Your task to perform on an android device: Clear the shopping cart on ebay.com. Add "macbook" to the cart on ebay.com, then select checkout. Image 0: 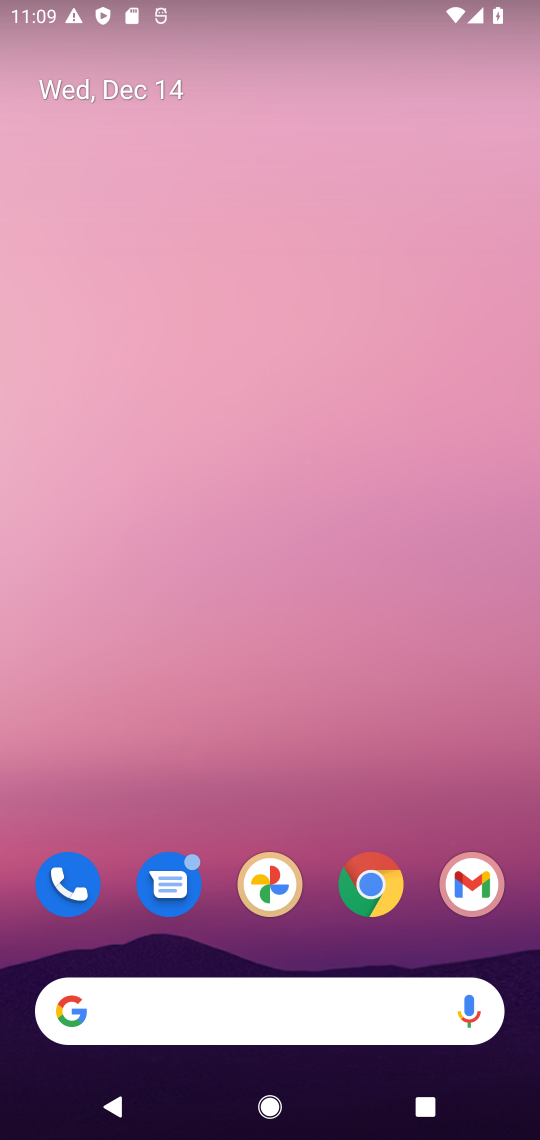
Step 0: click (382, 887)
Your task to perform on an android device: Clear the shopping cart on ebay.com. Add "macbook" to the cart on ebay.com, then select checkout. Image 1: 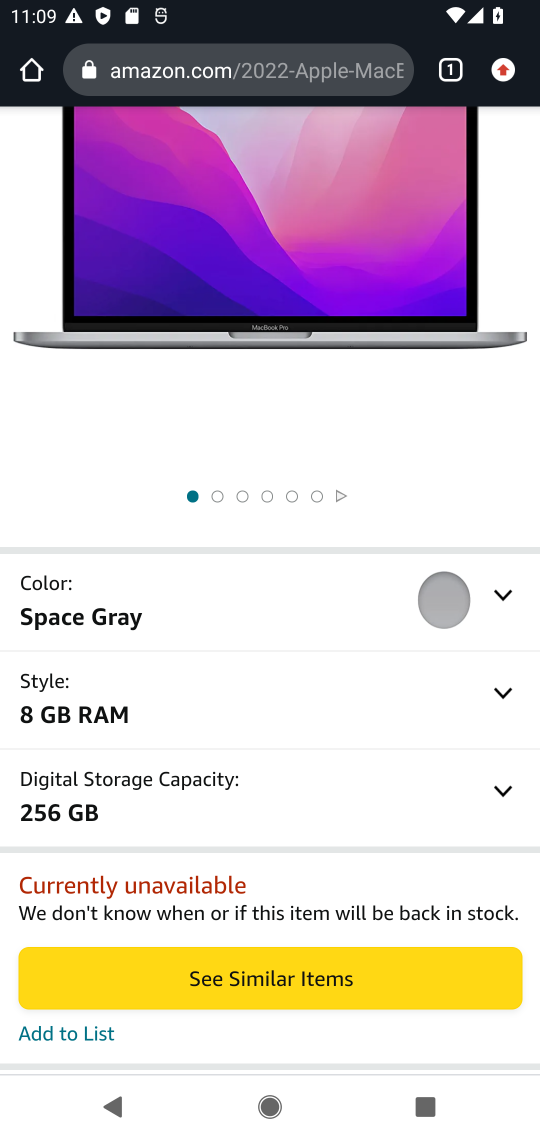
Step 1: click (271, 81)
Your task to perform on an android device: Clear the shopping cart on ebay.com. Add "macbook" to the cart on ebay.com, then select checkout. Image 2: 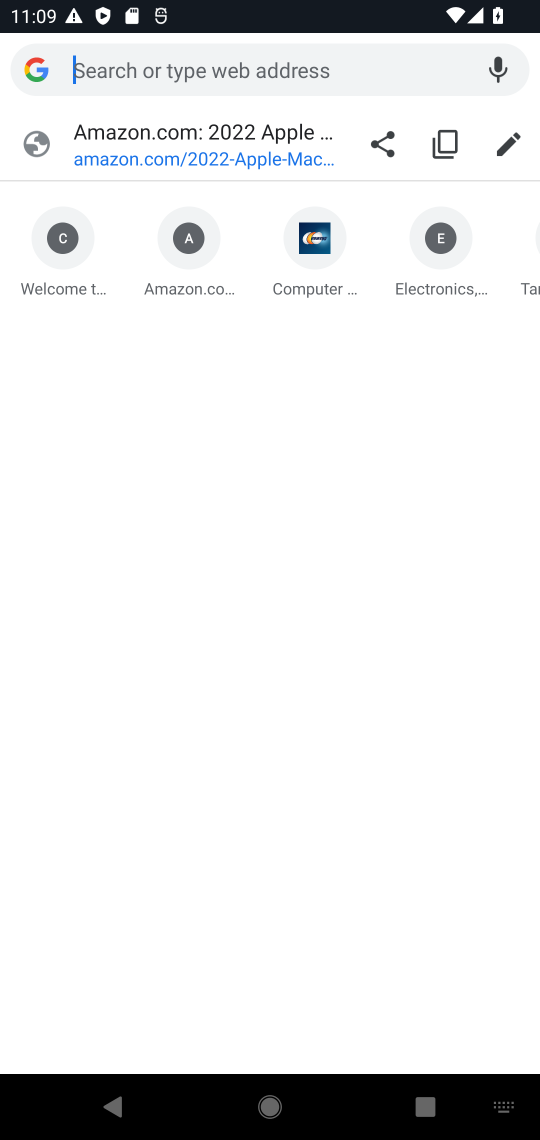
Step 2: type "ebay.com"
Your task to perform on an android device: Clear the shopping cart on ebay.com. Add "macbook" to the cart on ebay.com, then select checkout. Image 3: 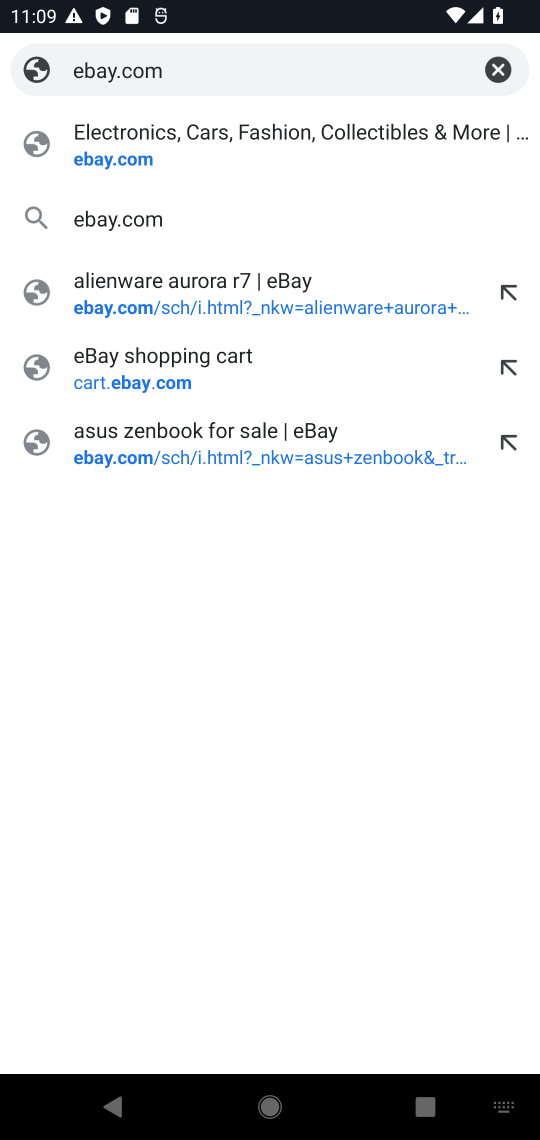
Step 3: click (149, 142)
Your task to perform on an android device: Clear the shopping cart on ebay.com. Add "macbook" to the cart on ebay.com, then select checkout. Image 4: 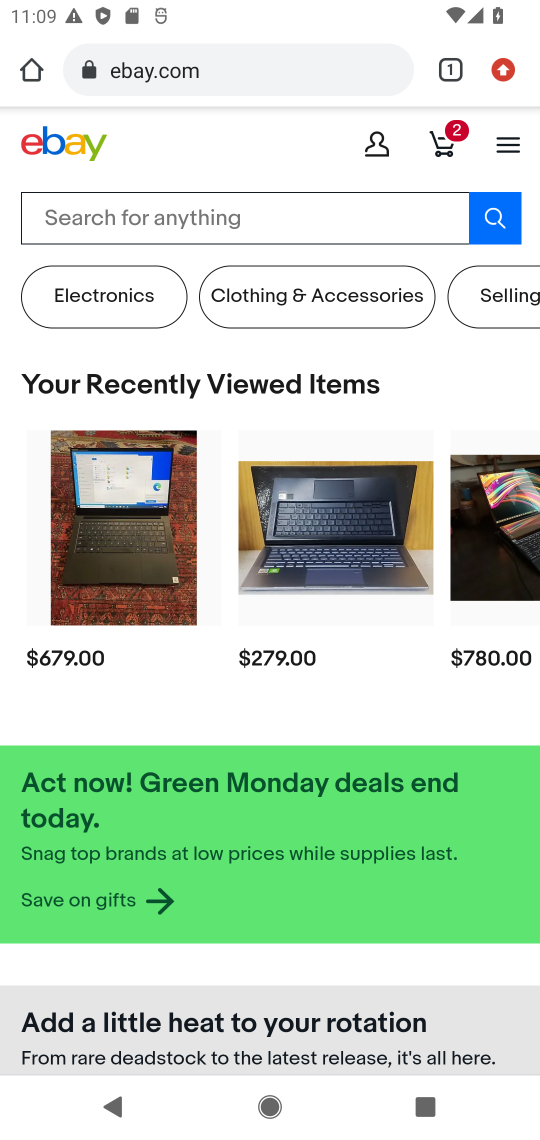
Step 4: drag from (403, 903) to (380, 331)
Your task to perform on an android device: Clear the shopping cart on ebay.com. Add "macbook" to the cart on ebay.com, then select checkout. Image 5: 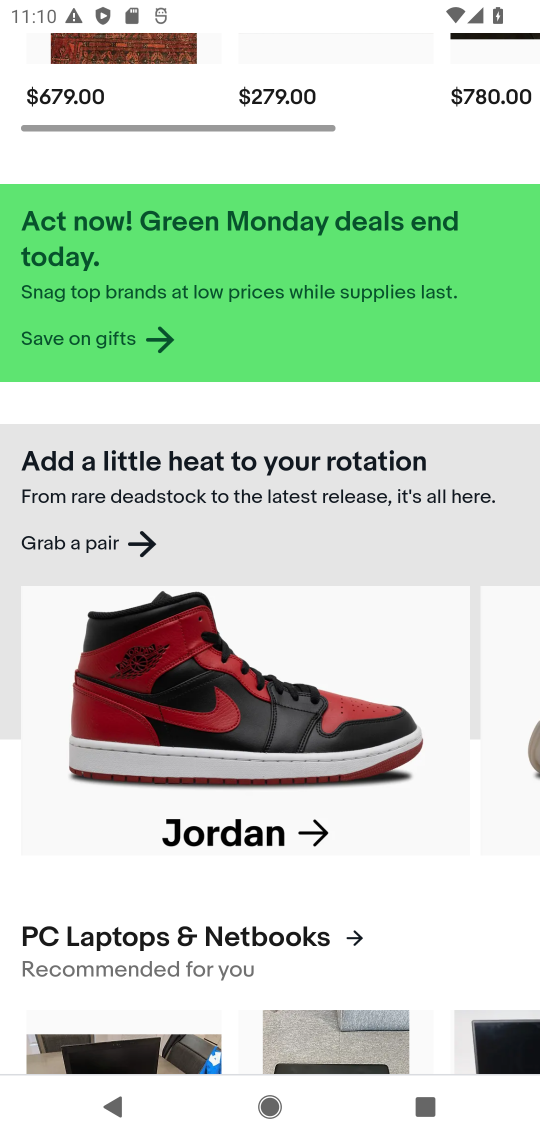
Step 5: drag from (331, 463) to (375, 1011)
Your task to perform on an android device: Clear the shopping cart on ebay.com. Add "macbook" to the cart on ebay.com, then select checkout. Image 6: 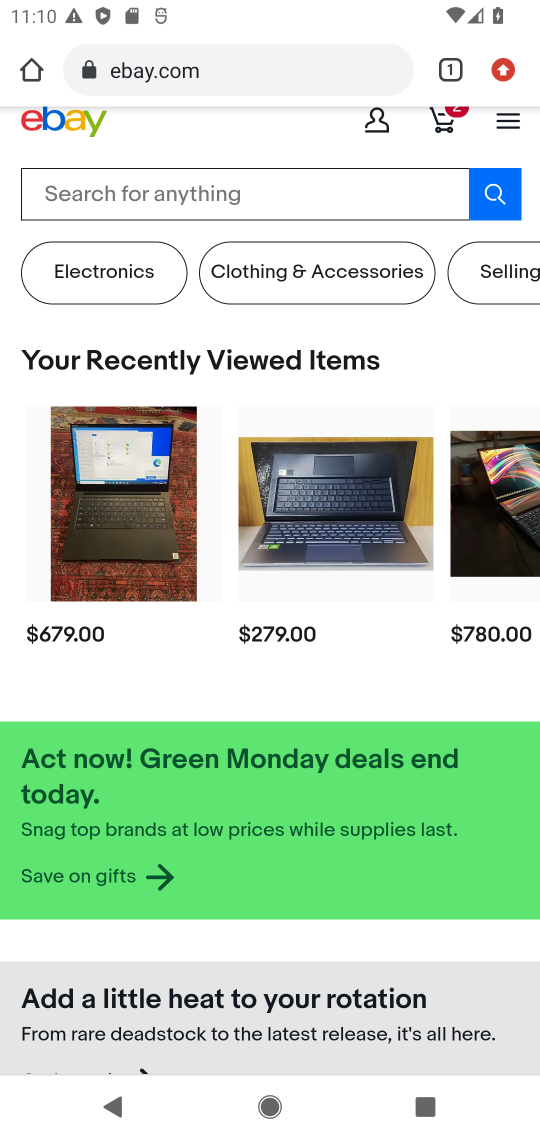
Step 6: click (450, 127)
Your task to perform on an android device: Clear the shopping cart on ebay.com. Add "macbook" to the cart on ebay.com, then select checkout. Image 7: 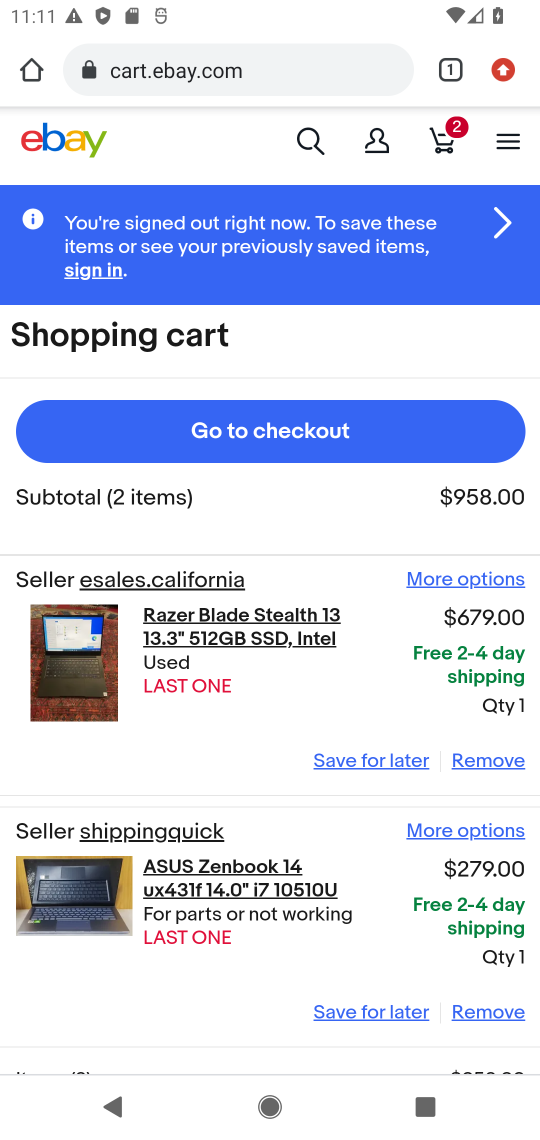
Step 7: click (482, 765)
Your task to perform on an android device: Clear the shopping cart on ebay.com. Add "macbook" to the cart on ebay.com, then select checkout. Image 8: 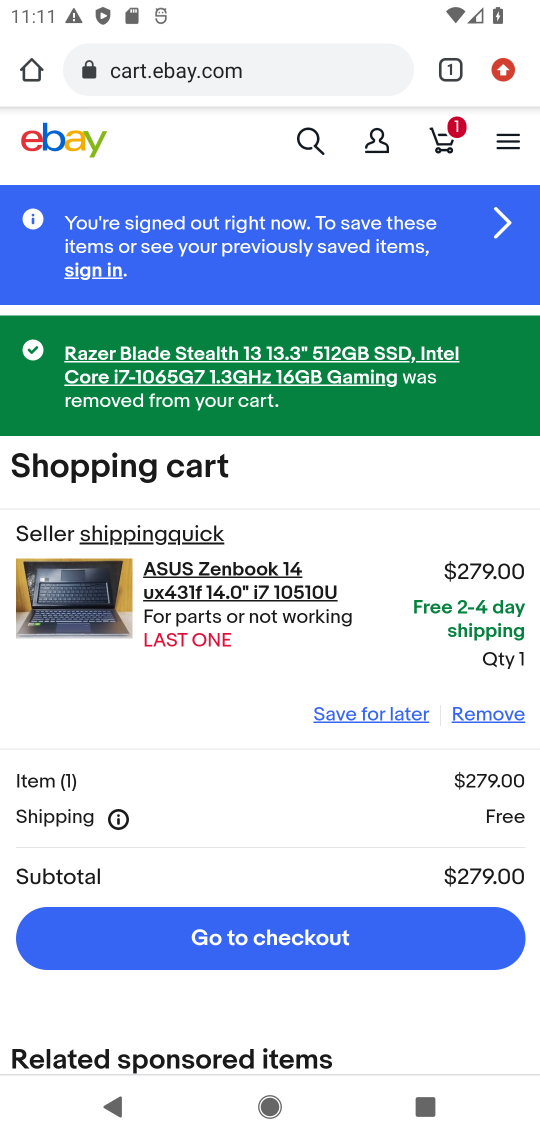
Step 8: click (486, 720)
Your task to perform on an android device: Clear the shopping cart on ebay.com. Add "macbook" to the cart on ebay.com, then select checkout. Image 9: 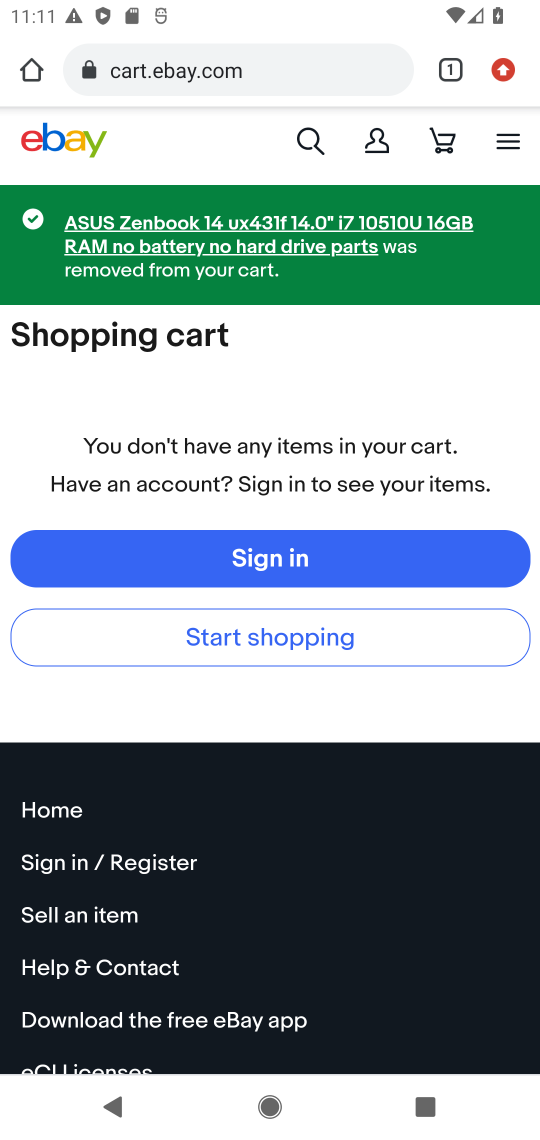
Step 9: click (321, 155)
Your task to perform on an android device: Clear the shopping cart on ebay.com. Add "macbook" to the cart on ebay.com, then select checkout. Image 10: 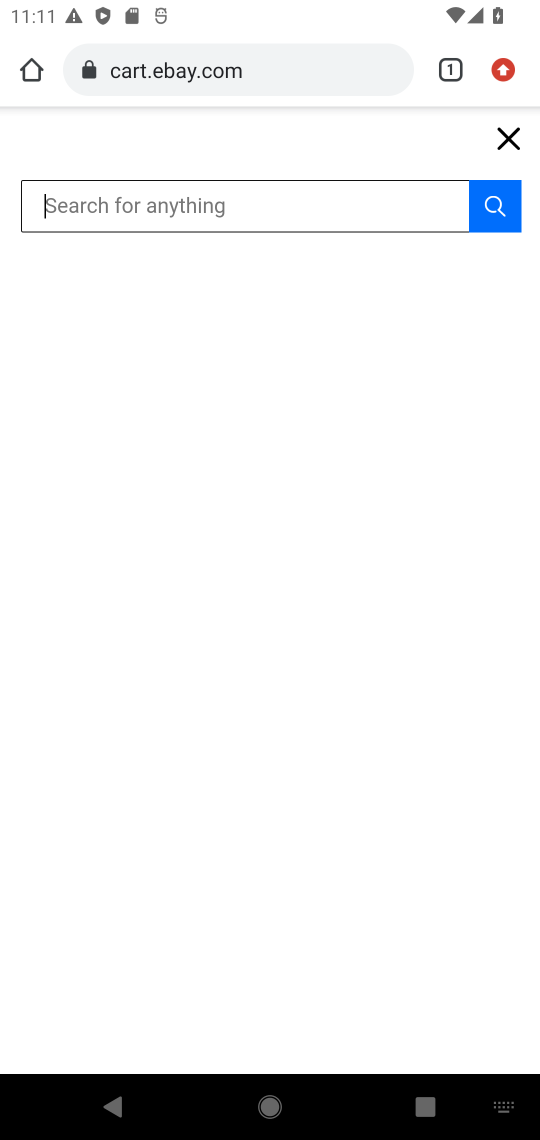
Step 10: type "macbook"
Your task to perform on an android device: Clear the shopping cart on ebay.com. Add "macbook" to the cart on ebay.com, then select checkout. Image 11: 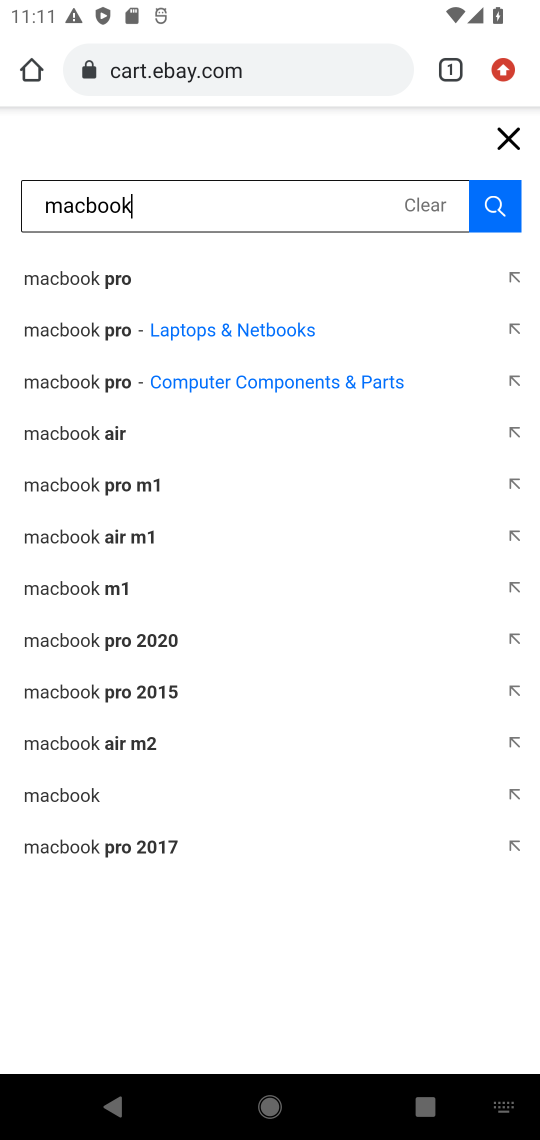
Step 11: click (510, 225)
Your task to perform on an android device: Clear the shopping cart on ebay.com. Add "macbook" to the cart on ebay.com, then select checkout. Image 12: 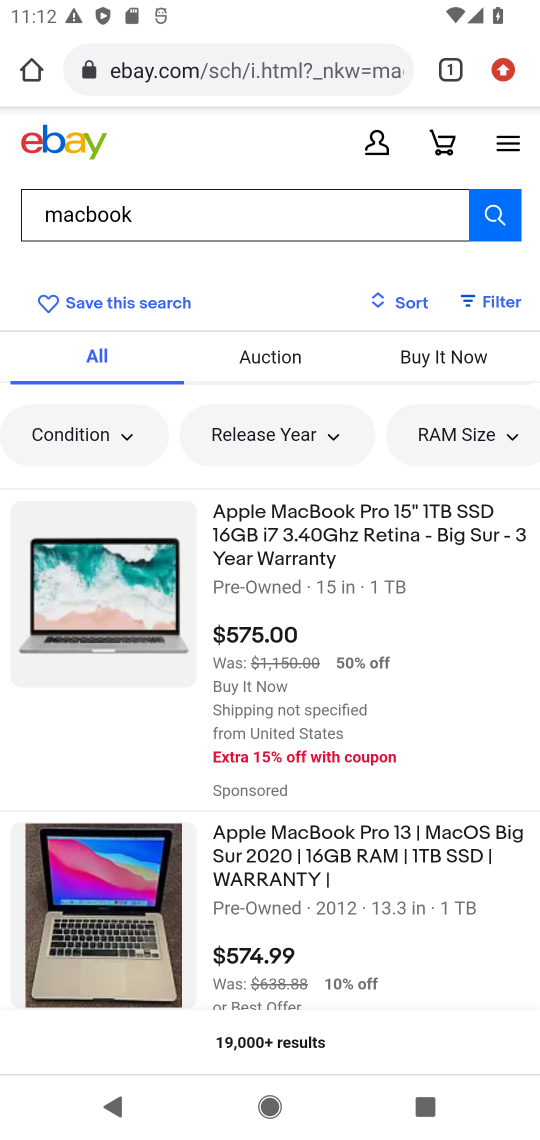
Step 12: click (257, 556)
Your task to perform on an android device: Clear the shopping cart on ebay.com. Add "macbook" to the cart on ebay.com, then select checkout. Image 13: 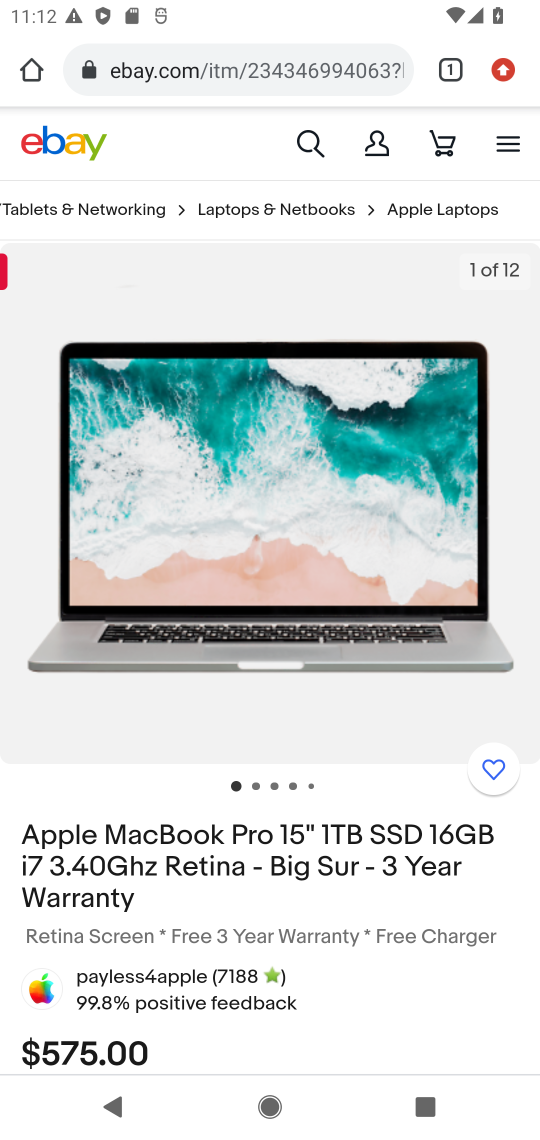
Step 13: drag from (327, 800) to (332, 460)
Your task to perform on an android device: Clear the shopping cart on ebay.com. Add "macbook" to the cart on ebay.com, then select checkout. Image 14: 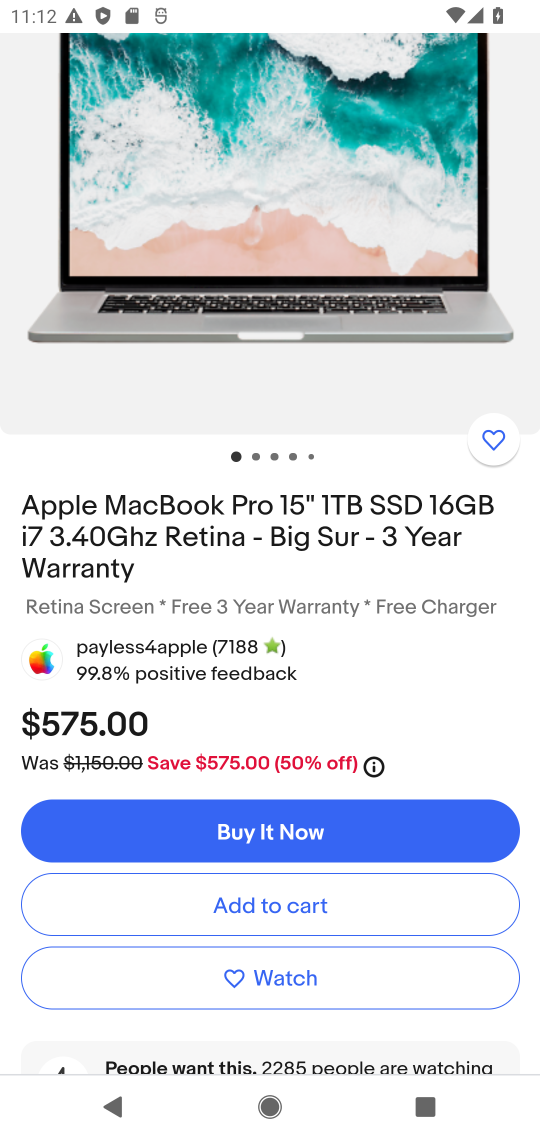
Step 14: click (323, 907)
Your task to perform on an android device: Clear the shopping cart on ebay.com. Add "macbook" to the cart on ebay.com, then select checkout. Image 15: 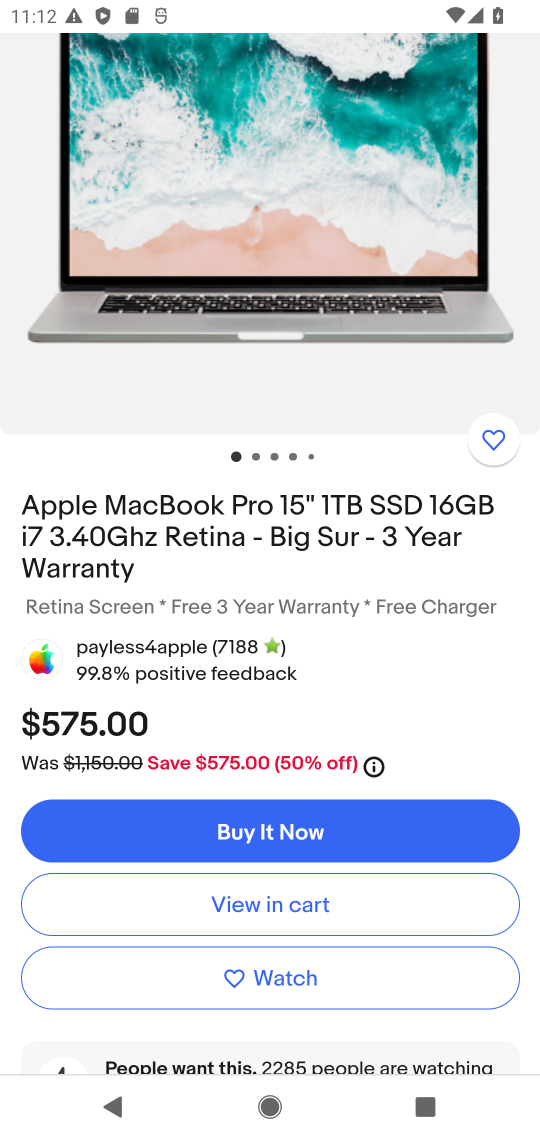
Step 15: click (323, 907)
Your task to perform on an android device: Clear the shopping cart on ebay.com. Add "macbook" to the cart on ebay.com, then select checkout. Image 16: 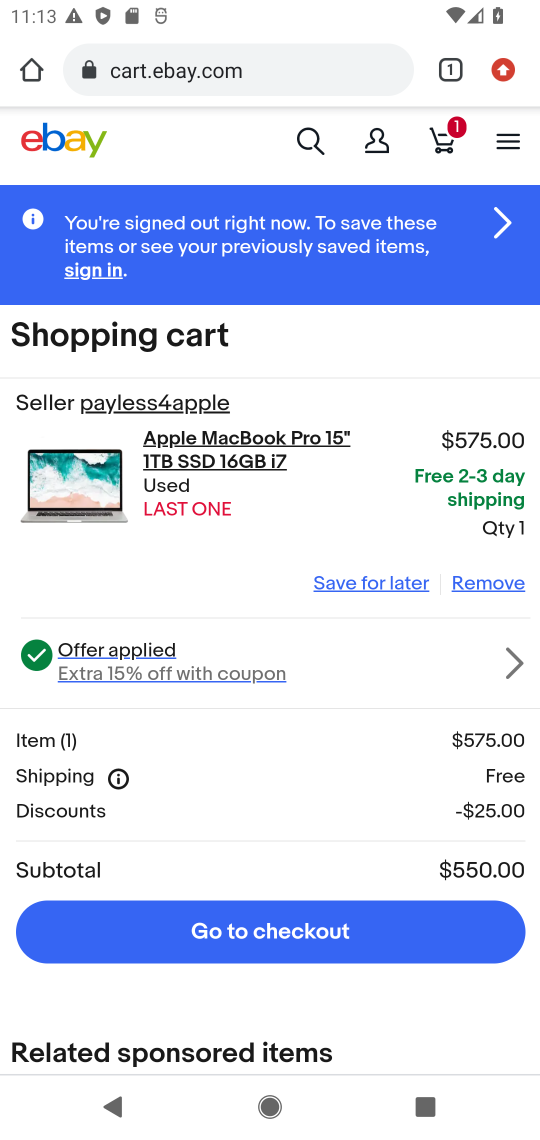
Step 16: click (246, 940)
Your task to perform on an android device: Clear the shopping cart on ebay.com. Add "macbook" to the cart on ebay.com, then select checkout. Image 17: 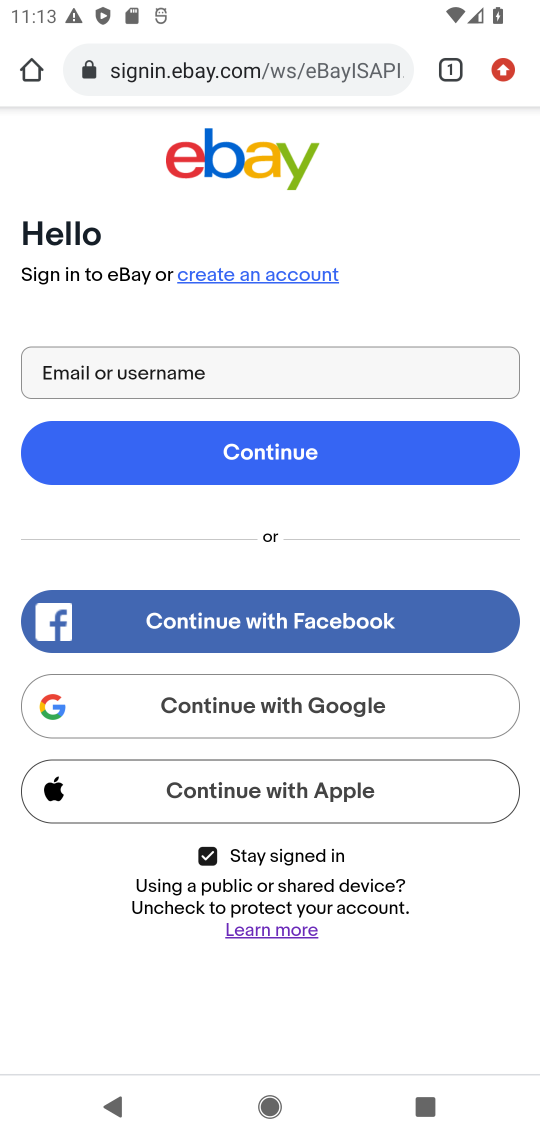
Step 17: task complete